Your task to perform on an android device: Play the last video I watched on Youtube Image 0: 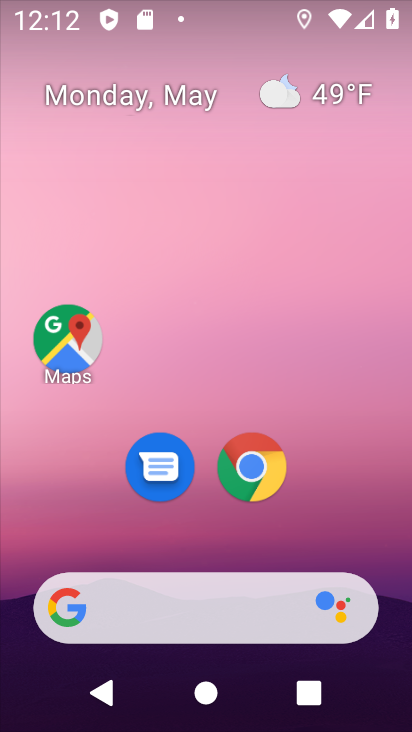
Step 0: drag from (365, 540) to (368, 187)
Your task to perform on an android device: Play the last video I watched on Youtube Image 1: 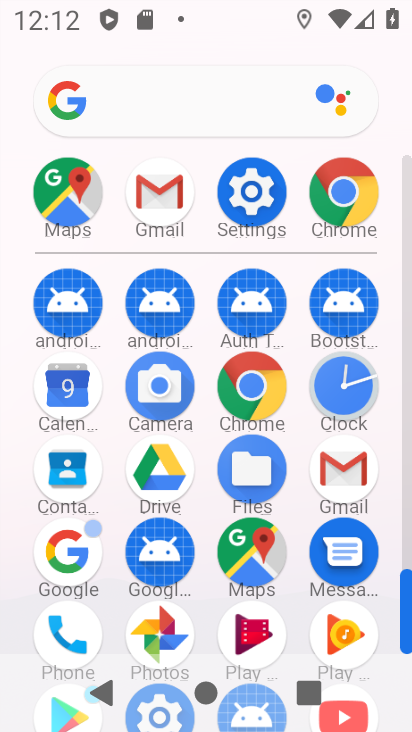
Step 1: drag from (301, 598) to (273, 339)
Your task to perform on an android device: Play the last video I watched on Youtube Image 2: 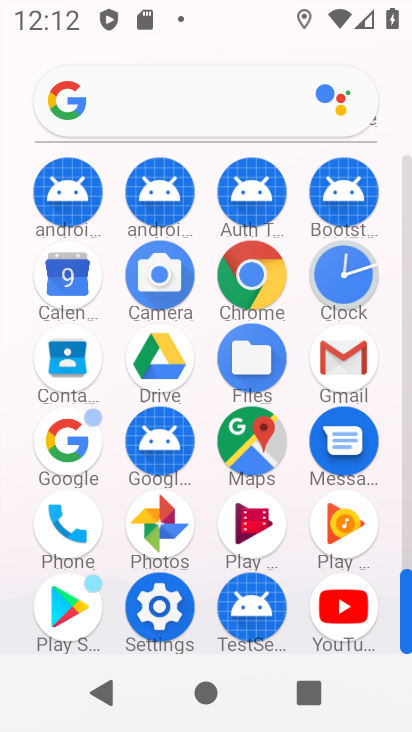
Step 2: click (350, 638)
Your task to perform on an android device: Play the last video I watched on Youtube Image 3: 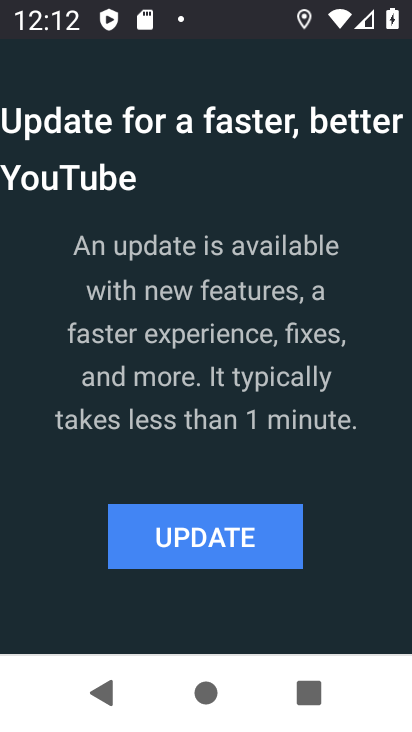
Step 3: click (253, 553)
Your task to perform on an android device: Play the last video I watched on Youtube Image 4: 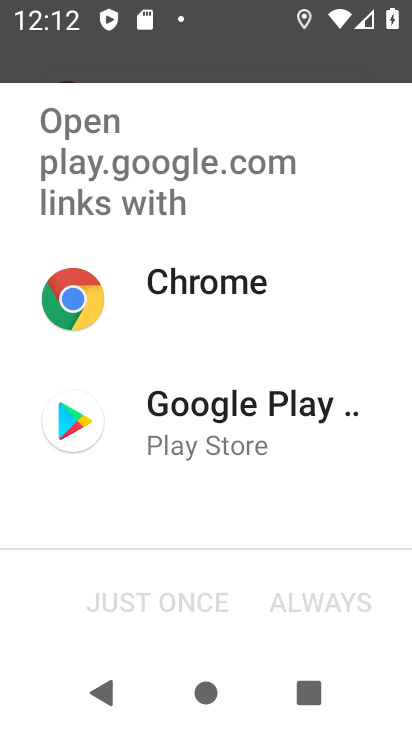
Step 4: click (228, 443)
Your task to perform on an android device: Play the last video I watched on Youtube Image 5: 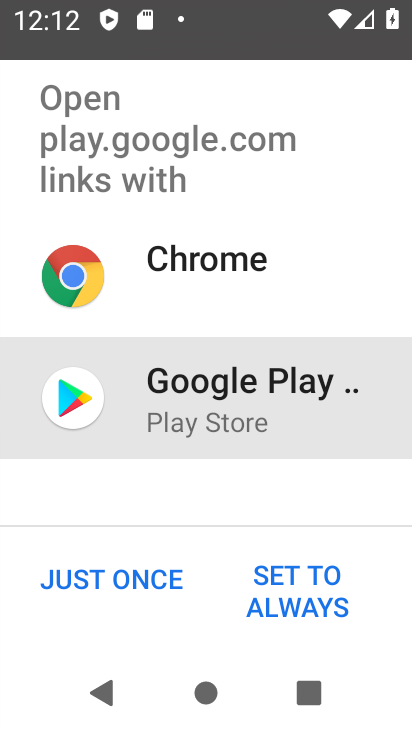
Step 5: click (154, 585)
Your task to perform on an android device: Play the last video I watched on Youtube Image 6: 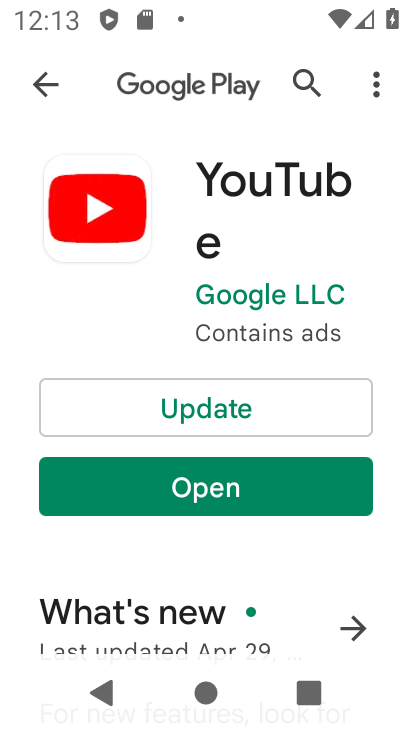
Step 6: click (141, 399)
Your task to perform on an android device: Play the last video I watched on Youtube Image 7: 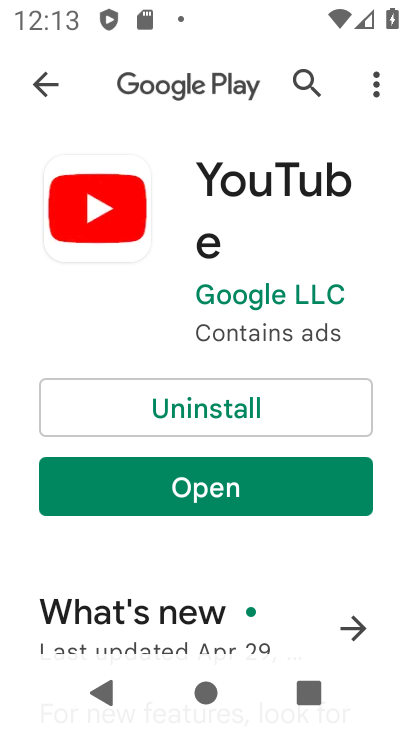
Step 7: click (156, 485)
Your task to perform on an android device: Play the last video I watched on Youtube Image 8: 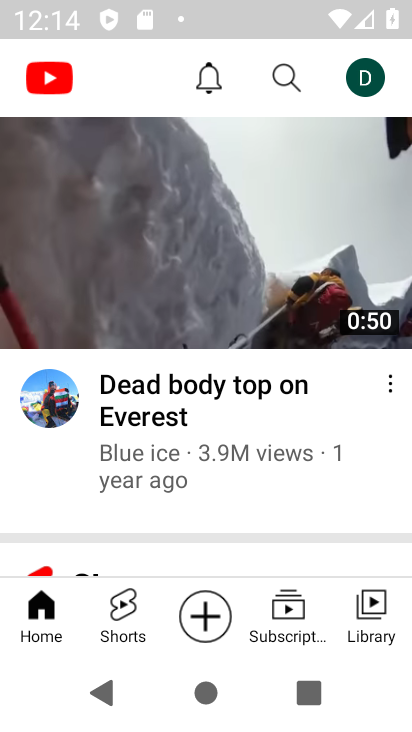
Step 8: click (379, 605)
Your task to perform on an android device: Play the last video I watched on Youtube Image 9: 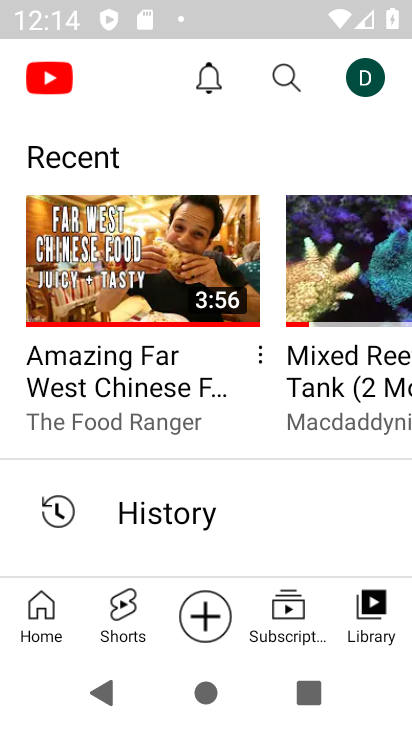
Step 9: task complete